Your task to perform on an android device: Show me productivity apps on the Play Store Image 0: 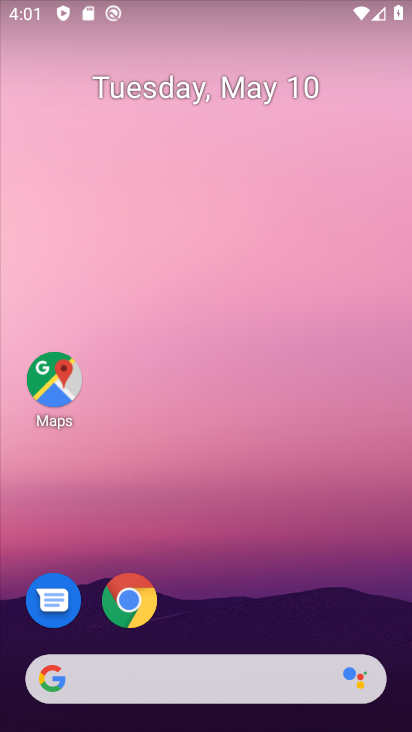
Step 0: drag from (202, 612) to (224, 213)
Your task to perform on an android device: Show me productivity apps on the Play Store Image 1: 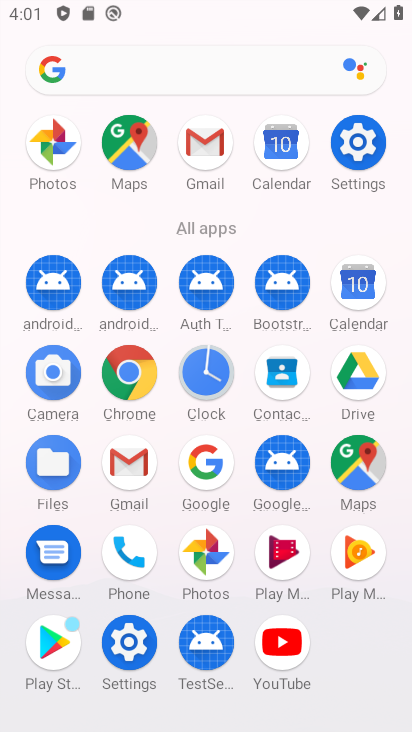
Step 1: click (63, 623)
Your task to perform on an android device: Show me productivity apps on the Play Store Image 2: 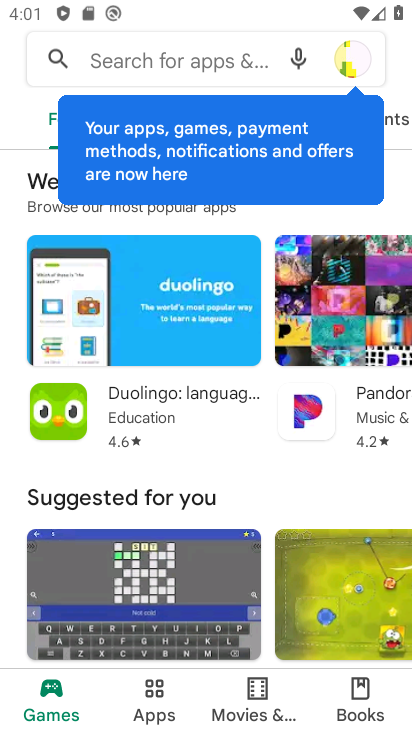
Step 2: drag from (207, 564) to (230, 300)
Your task to perform on an android device: Show me productivity apps on the Play Store Image 3: 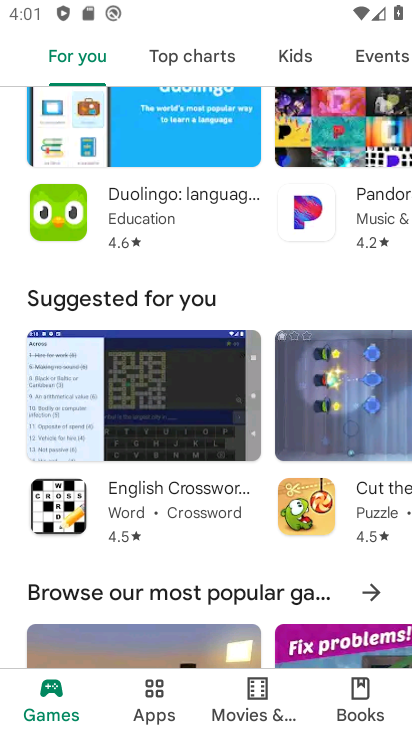
Step 3: click (139, 711)
Your task to perform on an android device: Show me productivity apps on the Play Store Image 4: 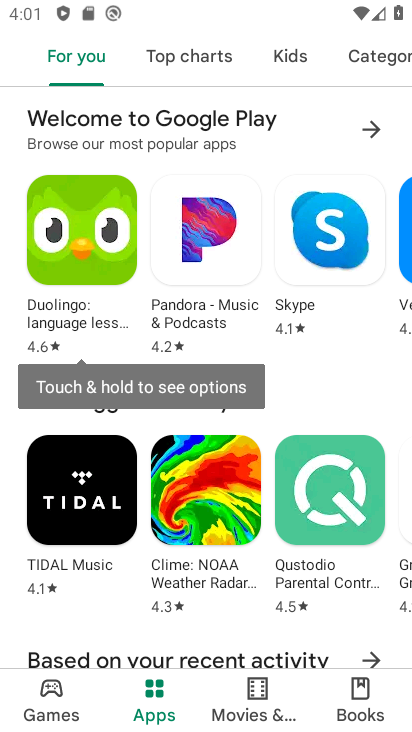
Step 4: click (386, 52)
Your task to perform on an android device: Show me productivity apps on the Play Store Image 5: 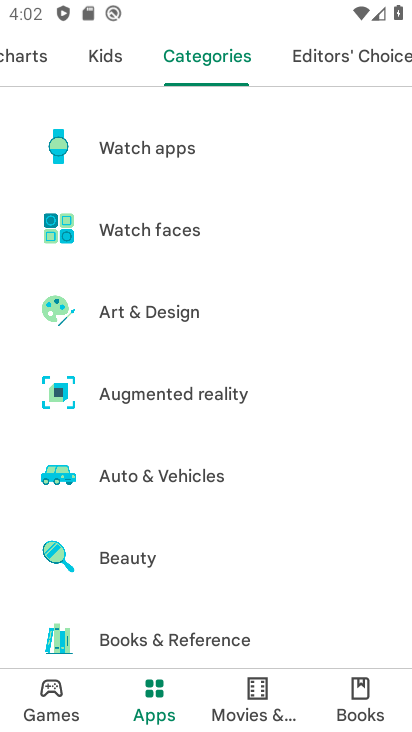
Step 5: drag from (199, 575) to (245, 155)
Your task to perform on an android device: Show me productivity apps on the Play Store Image 6: 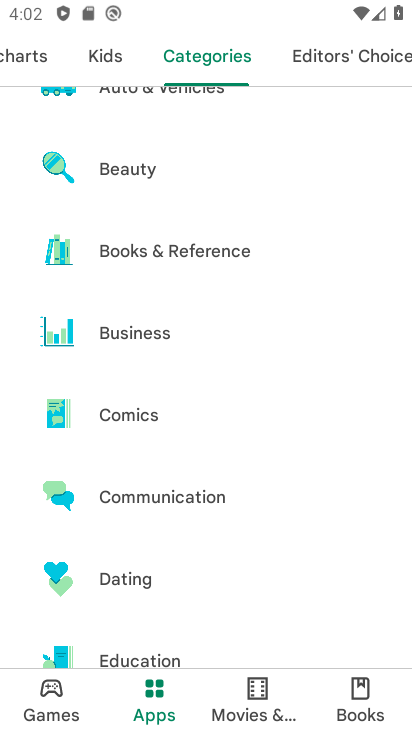
Step 6: drag from (173, 624) to (229, 276)
Your task to perform on an android device: Show me productivity apps on the Play Store Image 7: 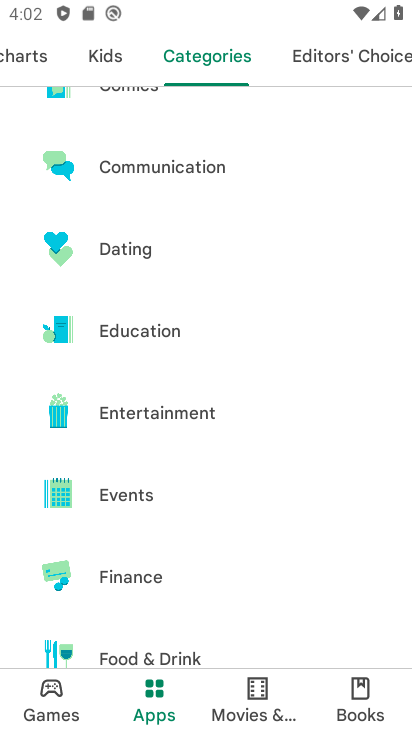
Step 7: drag from (220, 601) to (262, 215)
Your task to perform on an android device: Show me productivity apps on the Play Store Image 8: 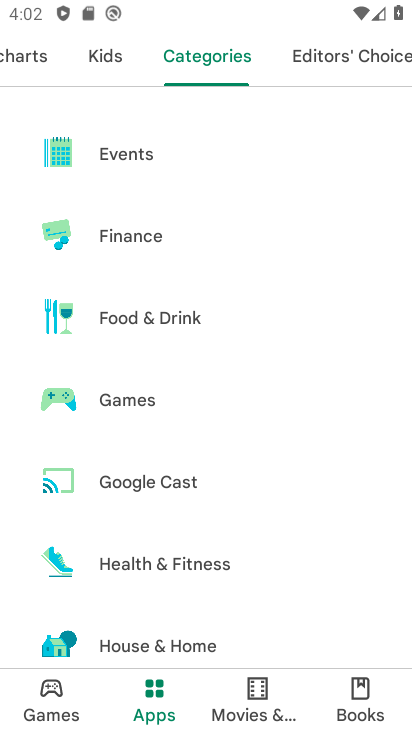
Step 8: drag from (231, 591) to (268, 220)
Your task to perform on an android device: Show me productivity apps on the Play Store Image 9: 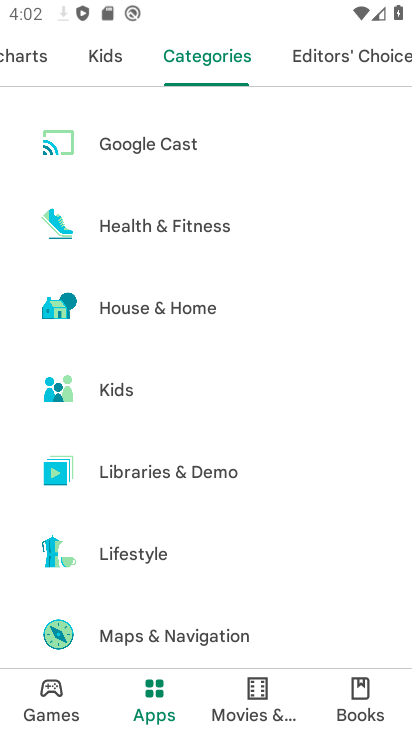
Step 9: drag from (239, 480) to (291, 277)
Your task to perform on an android device: Show me productivity apps on the Play Store Image 10: 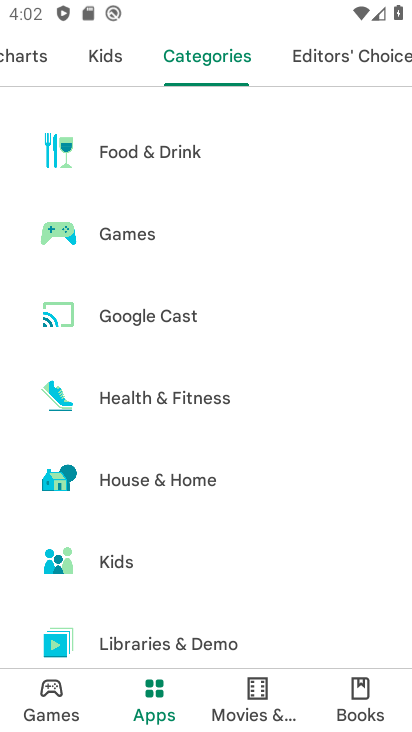
Step 10: drag from (173, 621) to (258, 302)
Your task to perform on an android device: Show me productivity apps on the Play Store Image 11: 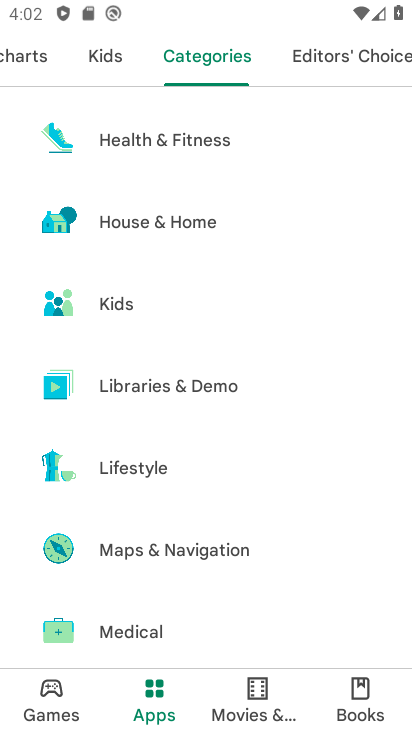
Step 11: drag from (199, 625) to (261, 337)
Your task to perform on an android device: Show me productivity apps on the Play Store Image 12: 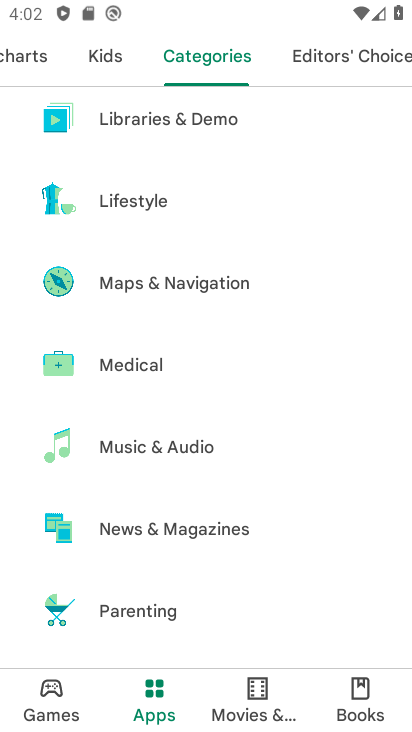
Step 12: drag from (208, 639) to (304, 161)
Your task to perform on an android device: Show me productivity apps on the Play Store Image 13: 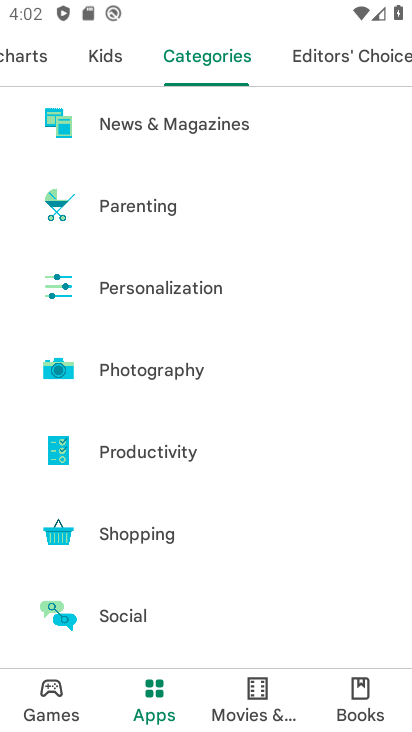
Step 13: click (167, 459)
Your task to perform on an android device: Show me productivity apps on the Play Store Image 14: 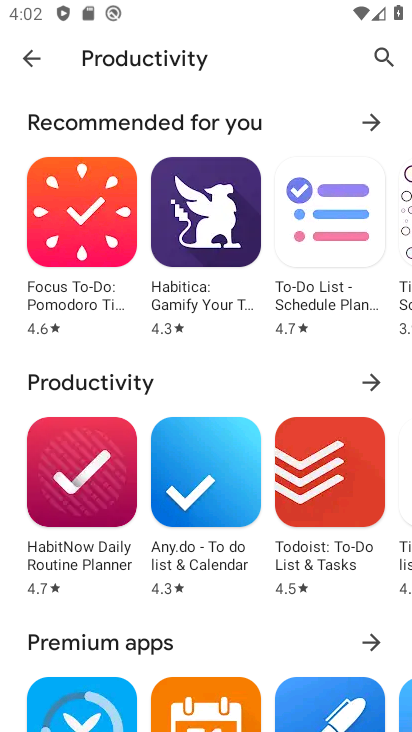
Step 14: task complete